Your task to perform on an android device: turn on location history Image 0: 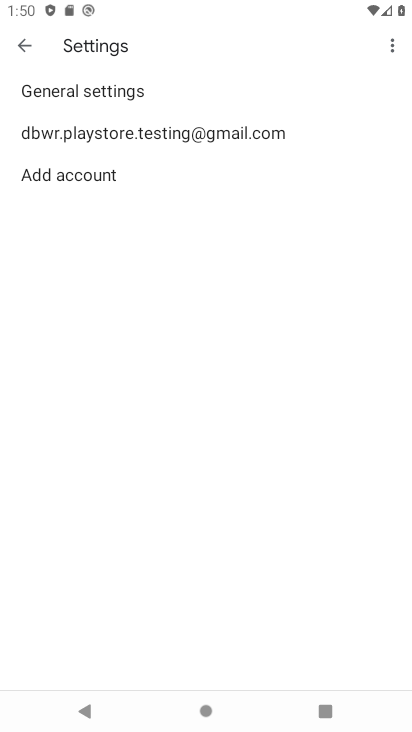
Step 0: press home button
Your task to perform on an android device: turn on location history Image 1: 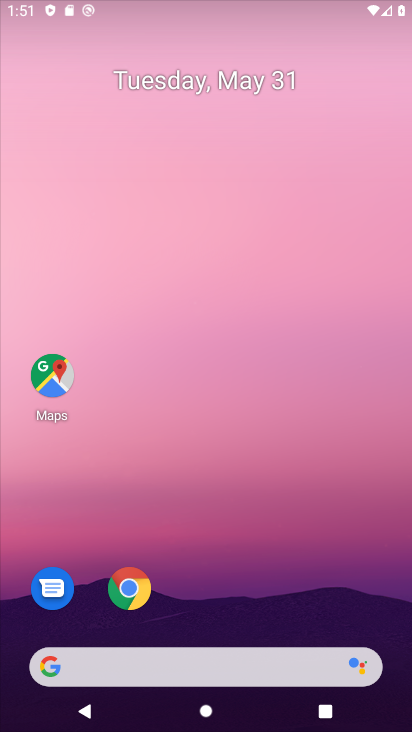
Step 1: drag from (151, 731) to (100, 32)
Your task to perform on an android device: turn on location history Image 2: 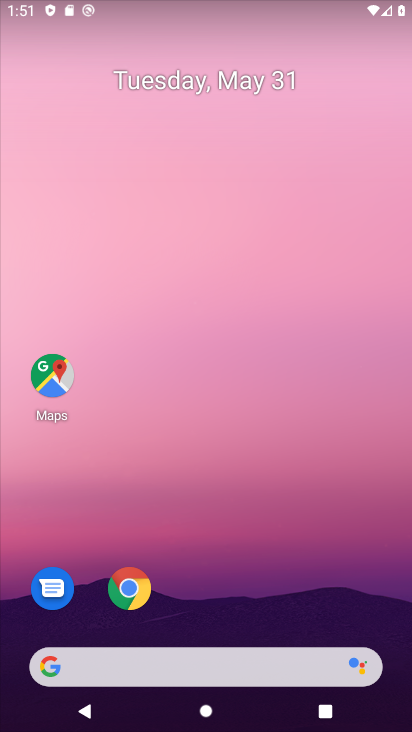
Step 2: drag from (152, 707) to (284, 26)
Your task to perform on an android device: turn on location history Image 3: 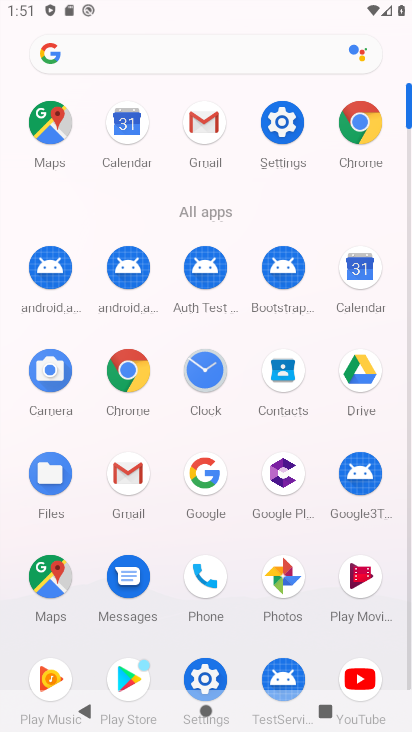
Step 3: click (276, 133)
Your task to perform on an android device: turn on location history Image 4: 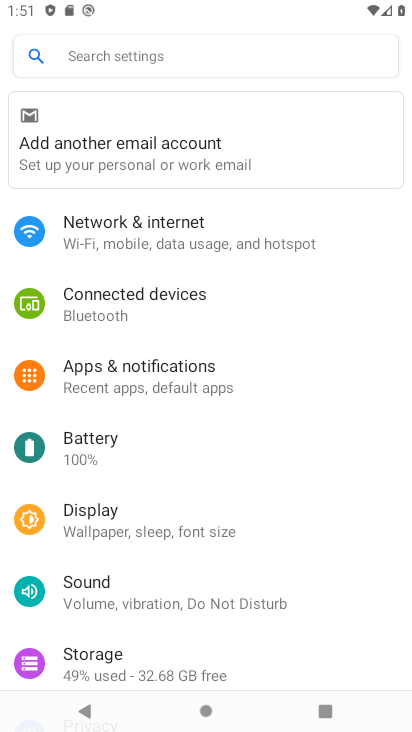
Step 4: drag from (173, 609) to (185, 232)
Your task to perform on an android device: turn on location history Image 5: 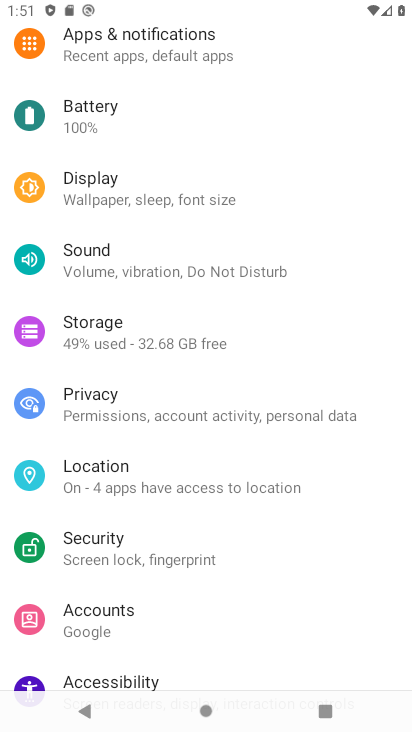
Step 5: click (130, 487)
Your task to perform on an android device: turn on location history Image 6: 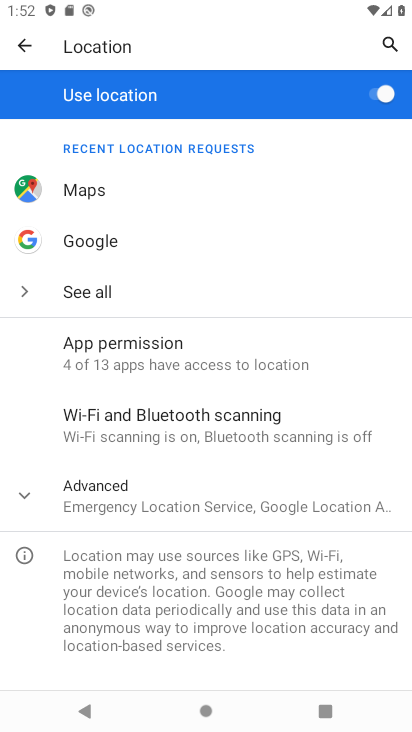
Step 6: click (169, 496)
Your task to perform on an android device: turn on location history Image 7: 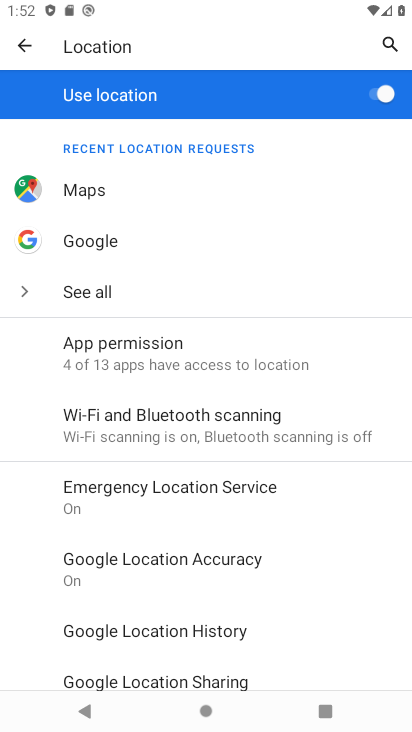
Step 7: click (170, 641)
Your task to perform on an android device: turn on location history Image 8: 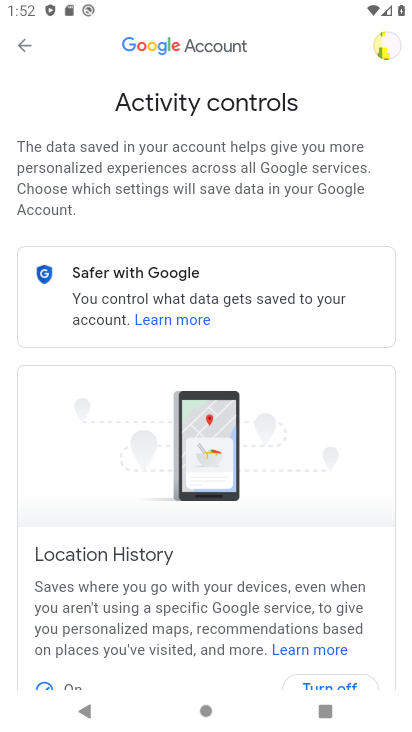
Step 8: task complete